Your task to perform on an android device: Open display settings Image 0: 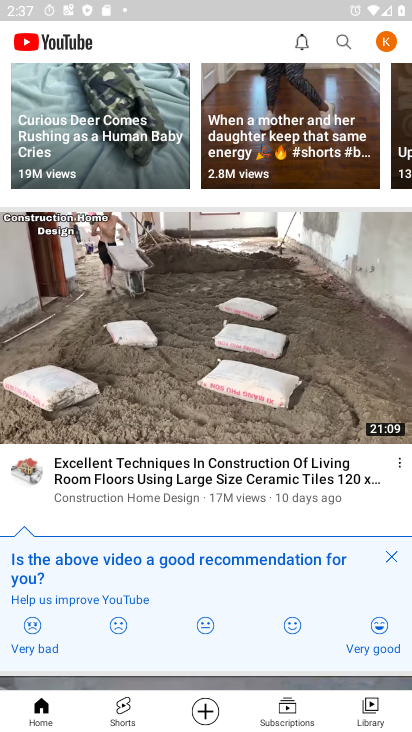
Step 0: press home button
Your task to perform on an android device: Open display settings Image 1: 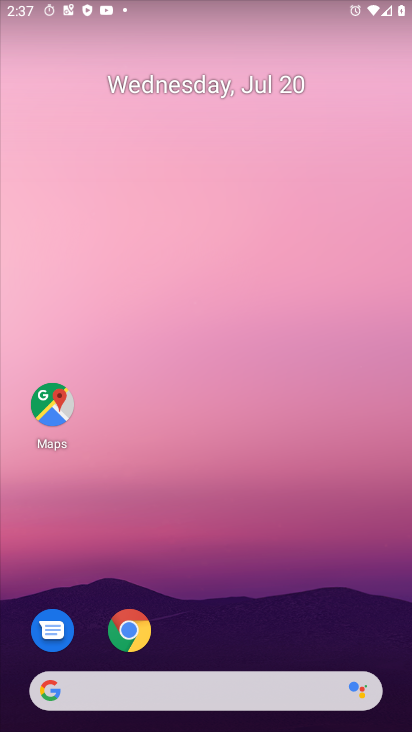
Step 1: drag from (147, 680) to (332, 175)
Your task to perform on an android device: Open display settings Image 2: 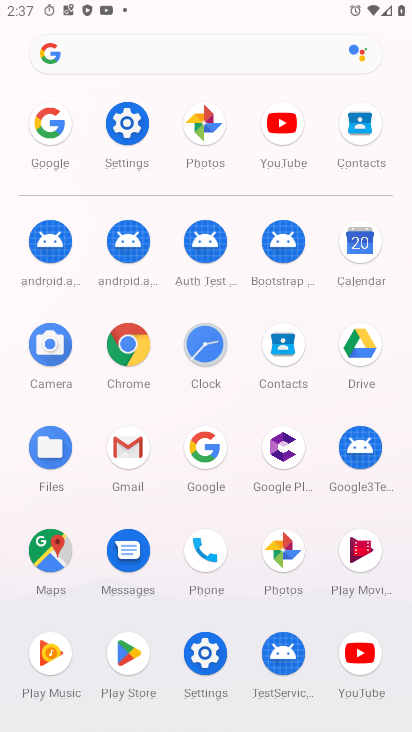
Step 2: click (128, 126)
Your task to perform on an android device: Open display settings Image 3: 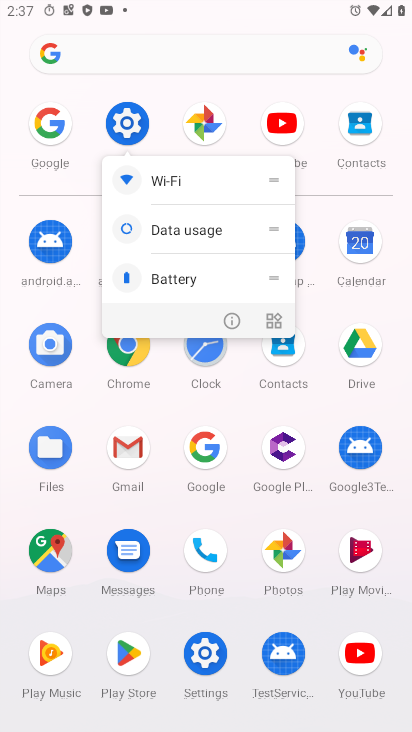
Step 3: click (128, 126)
Your task to perform on an android device: Open display settings Image 4: 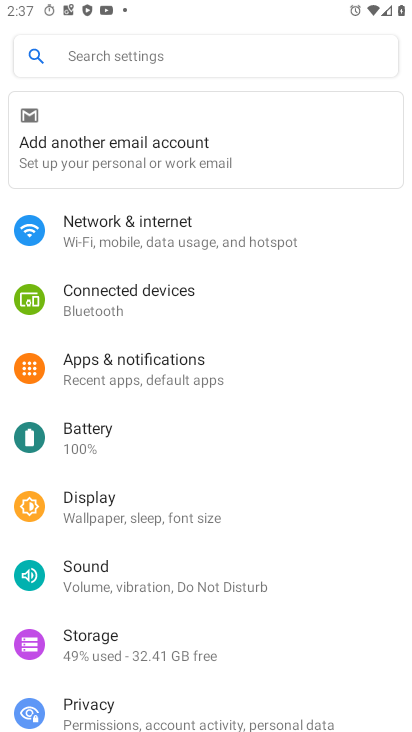
Step 4: click (140, 493)
Your task to perform on an android device: Open display settings Image 5: 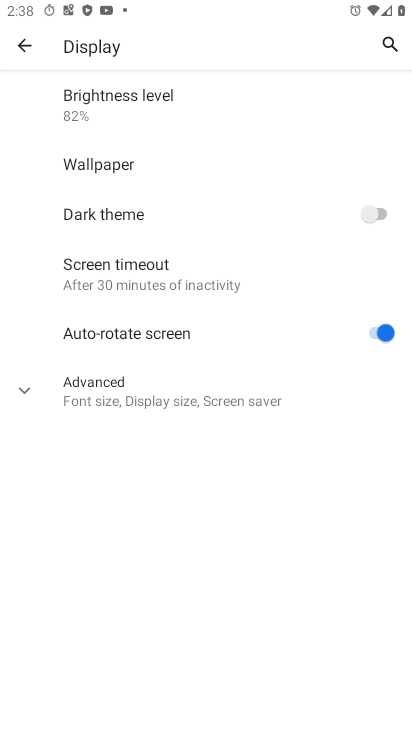
Step 5: task complete